Your task to perform on an android device: see creations saved in the google photos Image 0: 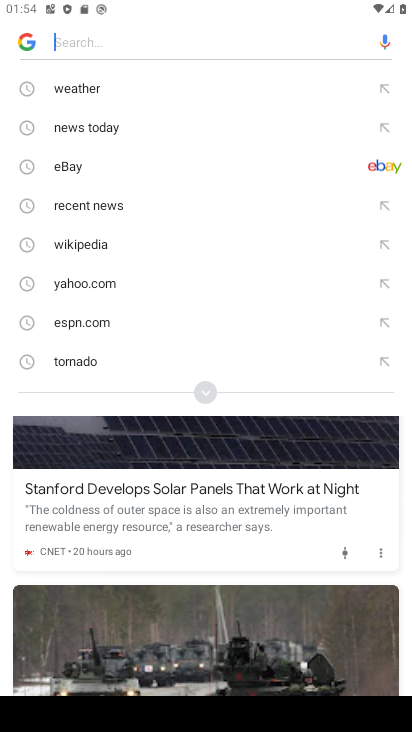
Step 0: press back button
Your task to perform on an android device: see creations saved in the google photos Image 1: 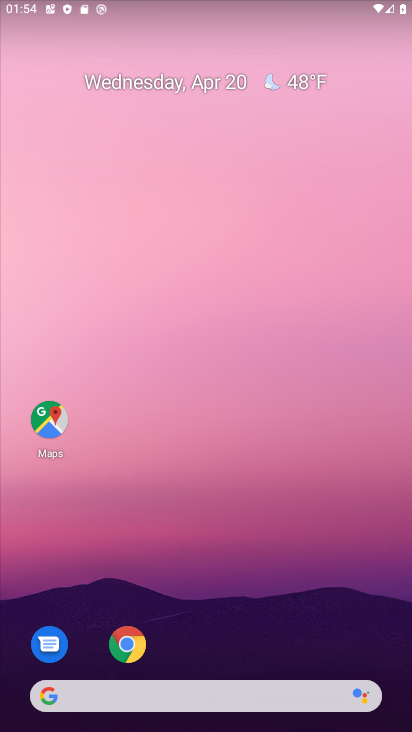
Step 1: drag from (174, 674) to (318, 121)
Your task to perform on an android device: see creations saved in the google photos Image 2: 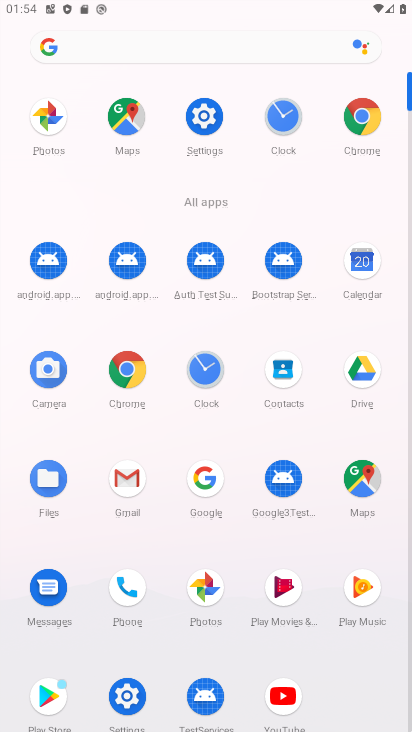
Step 2: click (212, 583)
Your task to perform on an android device: see creations saved in the google photos Image 3: 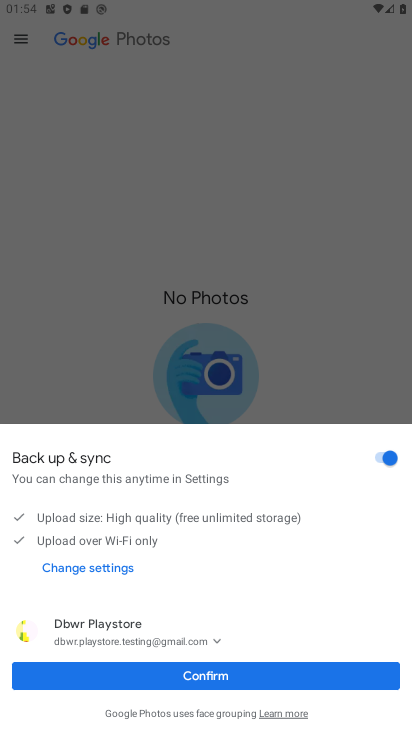
Step 3: click (203, 677)
Your task to perform on an android device: see creations saved in the google photos Image 4: 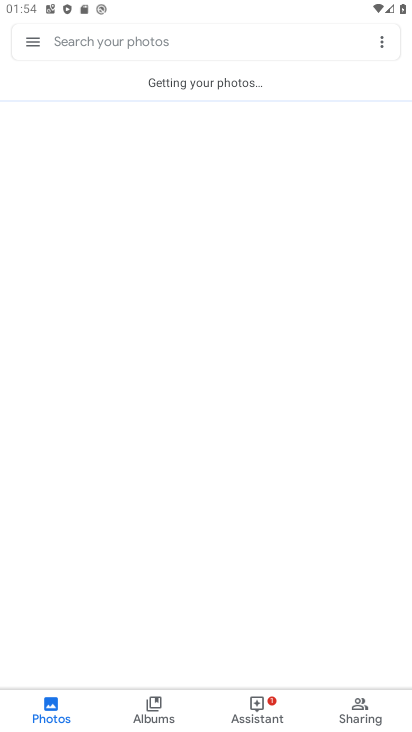
Step 4: click (143, 46)
Your task to perform on an android device: see creations saved in the google photos Image 5: 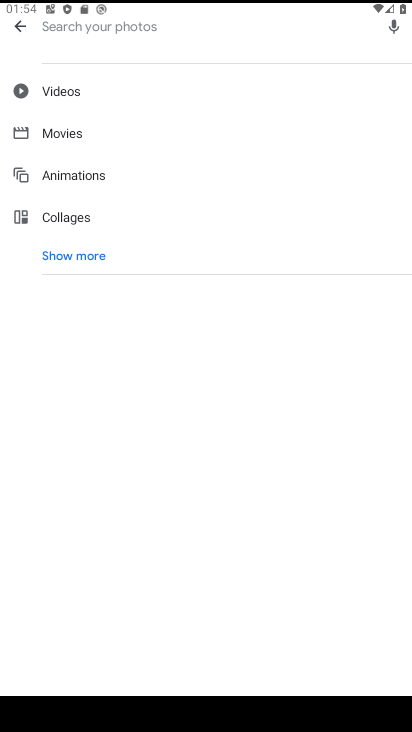
Step 5: type "creations "
Your task to perform on an android device: see creations saved in the google photos Image 6: 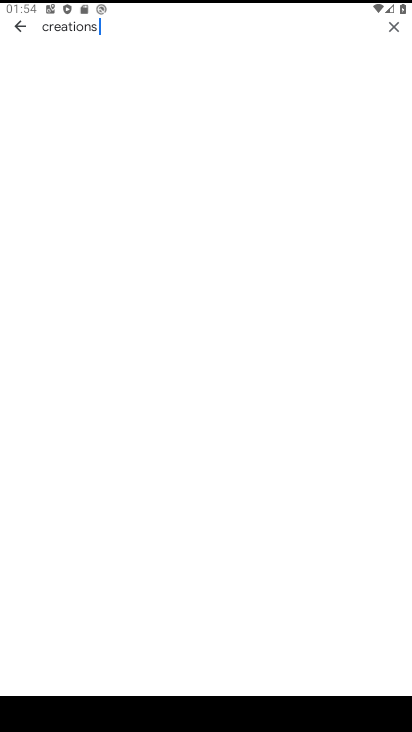
Step 6: click (391, 23)
Your task to perform on an android device: see creations saved in the google photos Image 7: 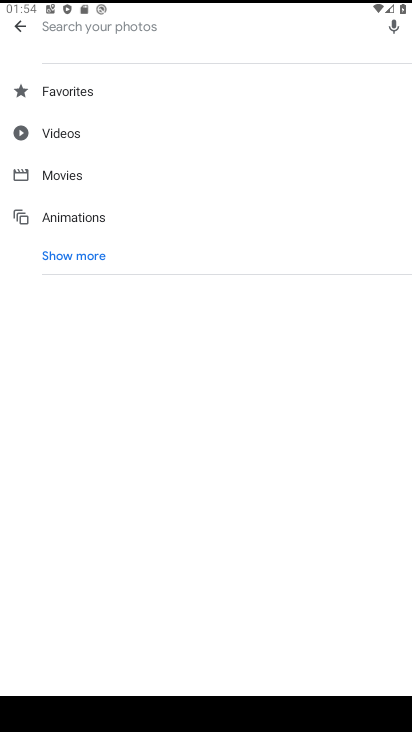
Step 7: click (68, 257)
Your task to perform on an android device: see creations saved in the google photos Image 8: 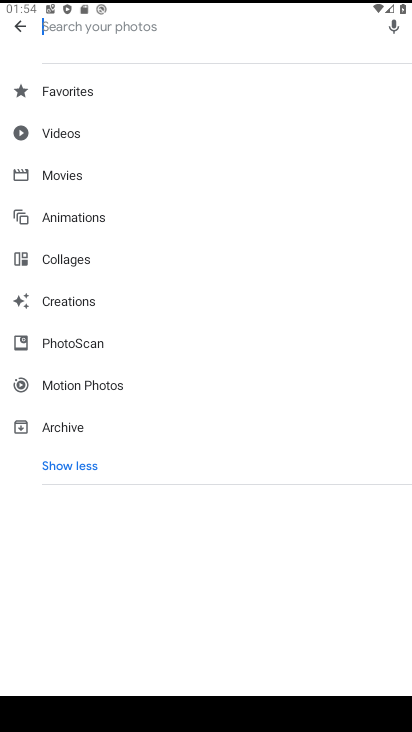
Step 8: click (89, 306)
Your task to perform on an android device: see creations saved in the google photos Image 9: 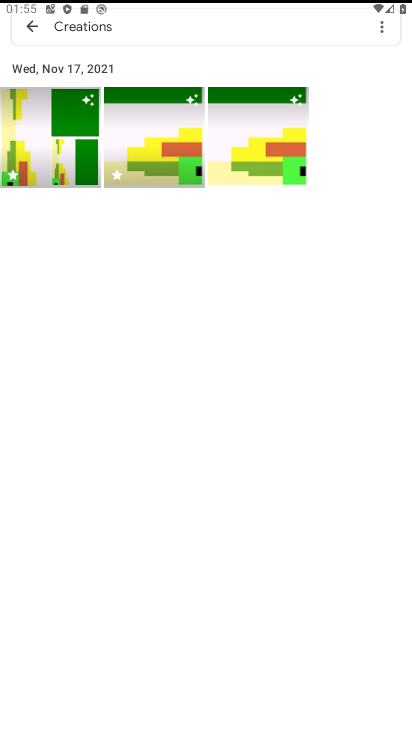
Step 9: task complete